Your task to perform on an android device: empty trash in google photos Image 0: 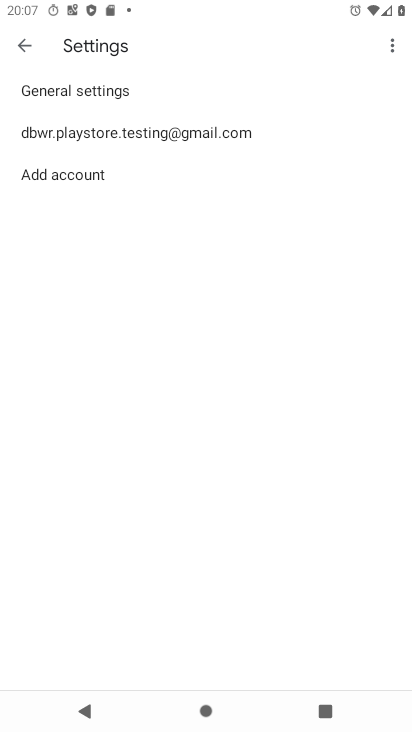
Step 0: press home button
Your task to perform on an android device: empty trash in google photos Image 1: 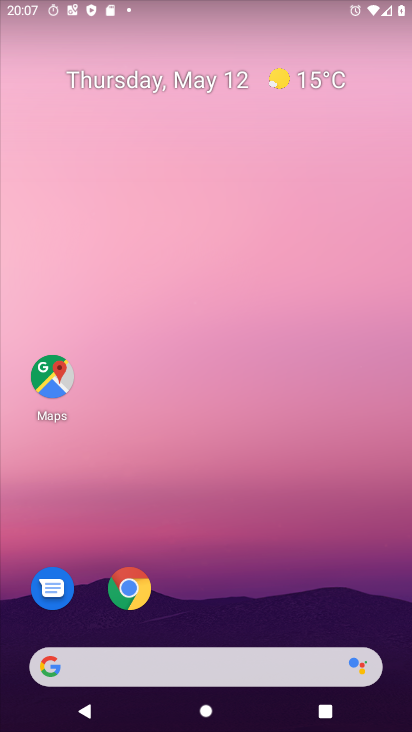
Step 1: drag from (166, 626) to (172, 243)
Your task to perform on an android device: empty trash in google photos Image 2: 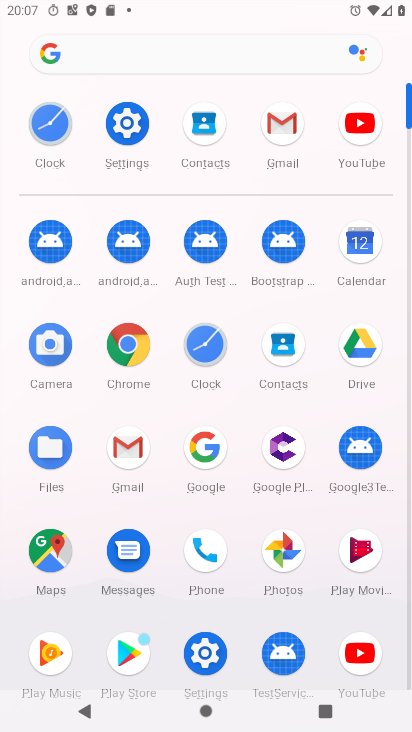
Step 2: click (293, 545)
Your task to perform on an android device: empty trash in google photos Image 3: 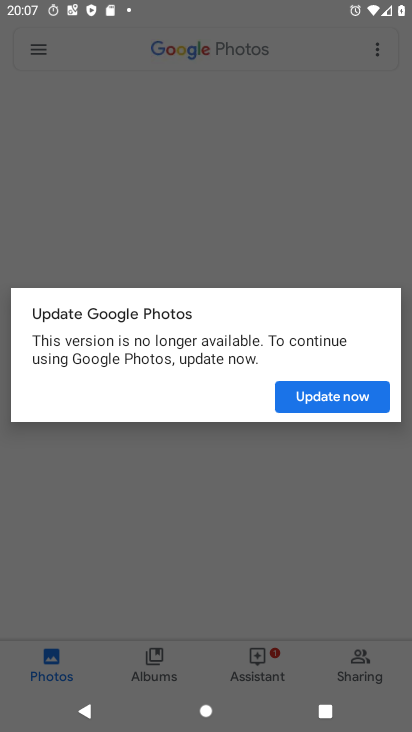
Step 3: click (320, 409)
Your task to perform on an android device: empty trash in google photos Image 4: 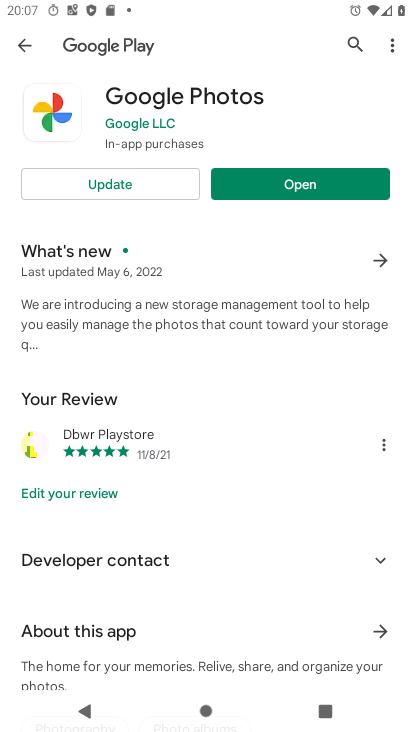
Step 4: click (107, 185)
Your task to perform on an android device: empty trash in google photos Image 5: 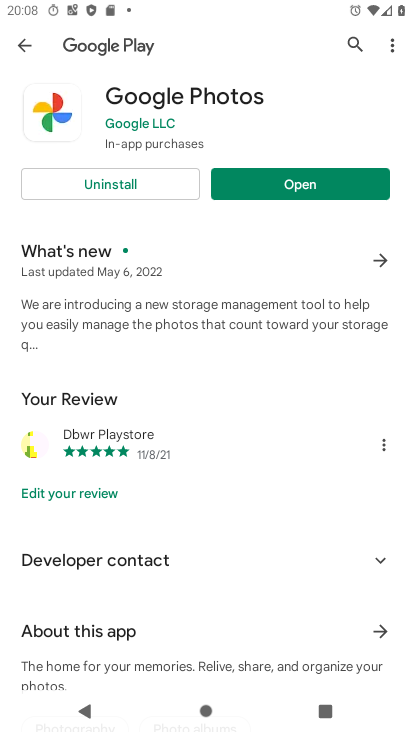
Step 5: click (331, 185)
Your task to perform on an android device: empty trash in google photos Image 6: 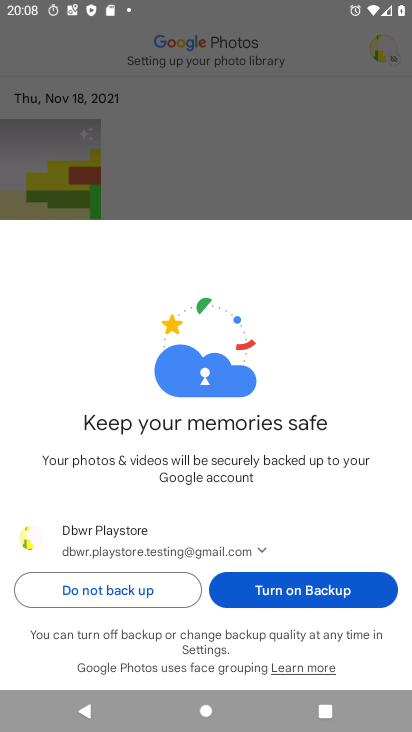
Step 6: click (116, 582)
Your task to perform on an android device: empty trash in google photos Image 7: 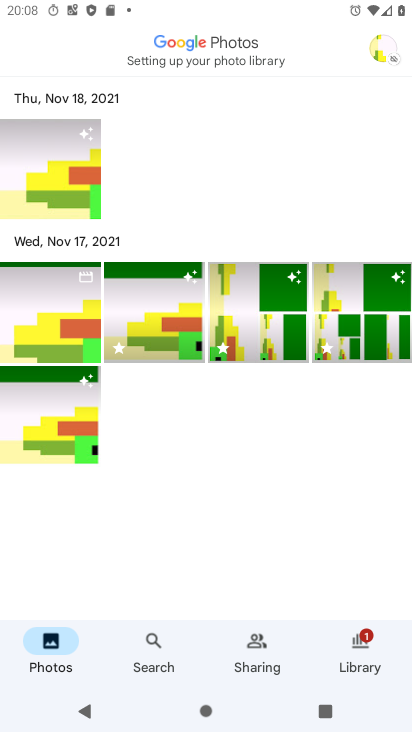
Step 7: click (378, 51)
Your task to perform on an android device: empty trash in google photos Image 8: 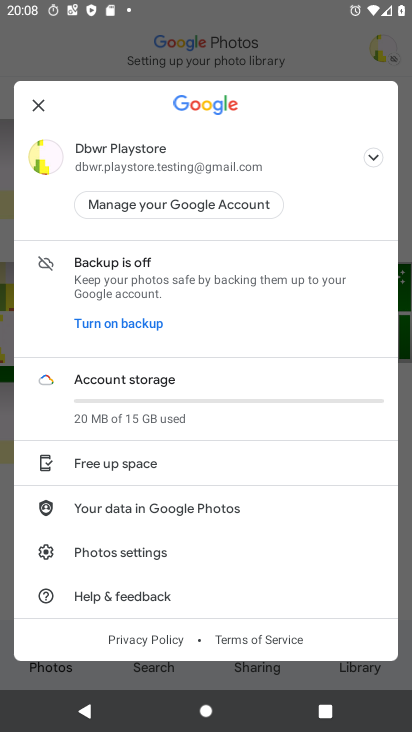
Step 8: click (355, 669)
Your task to perform on an android device: empty trash in google photos Image 9: 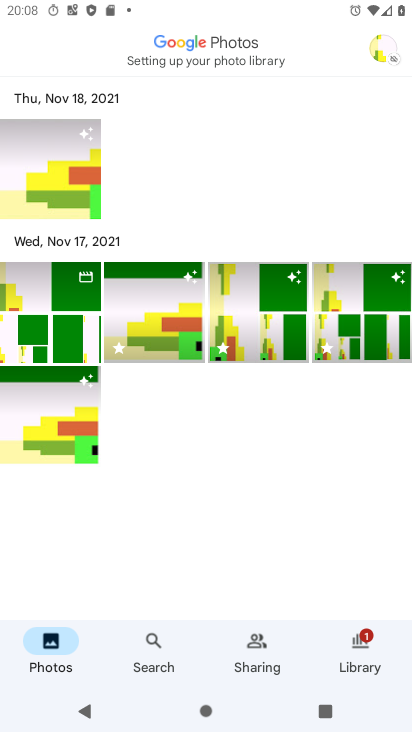
Step 9: click (363, 648)
Your task to perform on an android device: empty trash in google photos Image 10: 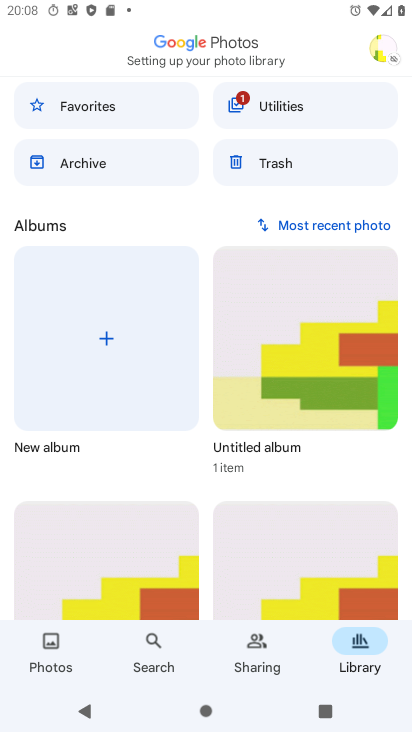
Step 10: click (288, 162)
Your task to perform on an android device: empty trash in google photos Image 11: 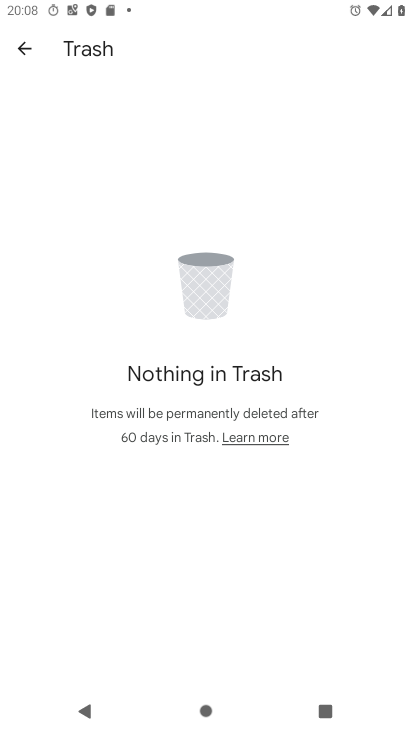
Step 11: task complete